Your task to perform on an android device: turn notification dots on Image 0: 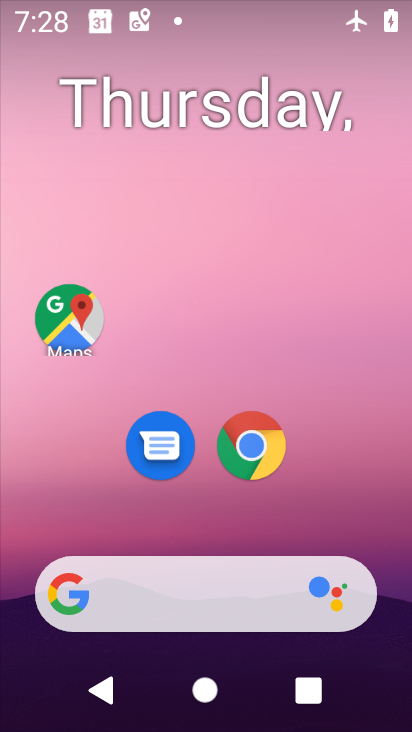
Step 0: drag from (400, 638) to (274, 57)
Your task to perform on an android device: turn notification dots on Image 1: 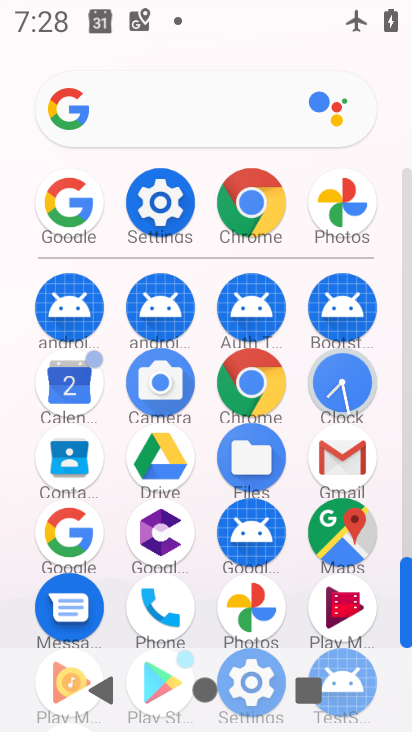
Step 1: click (173, 186)
Your task to perform on an android device: turn notification dots on Image 2: 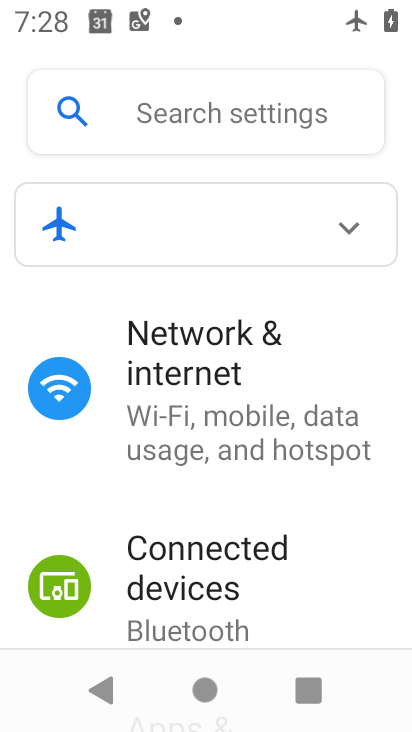
Step 2: drag from (264, 565) to (226, 169)
Your task to perform on an android device: turn notification dots on Image 3: 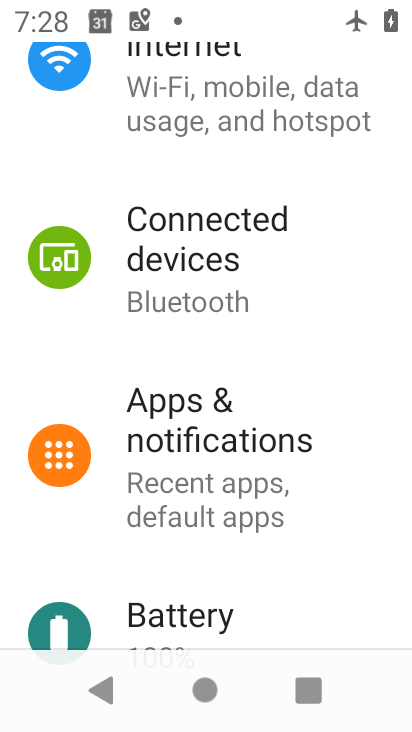
Step 3: click (252, 419)
Your task to perform on an android device: turn notification dots on Image 4: 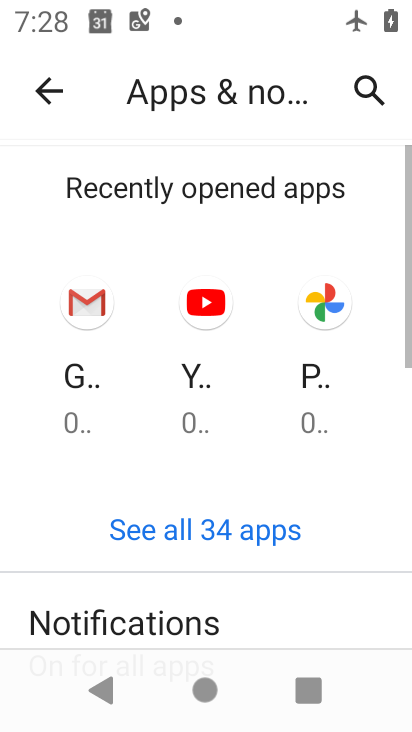
Step 4: click (182, 607)
Your task to perform on an android device: turn notification dots on Image 5: 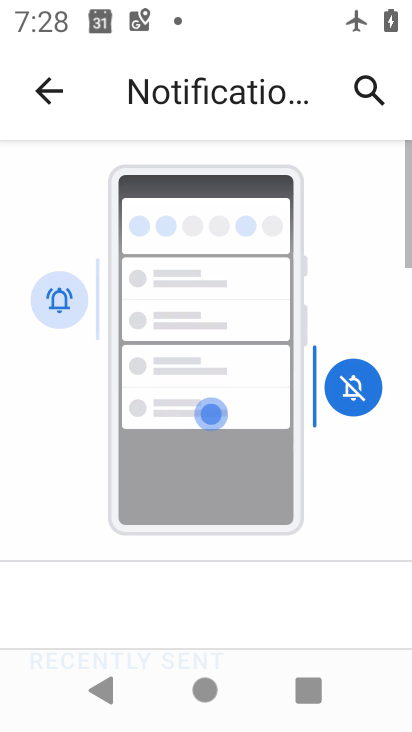
Step 5: drag from (182, 607) to (173, 53)
Your task to perform on an android device: turn notification dots on Image 6: 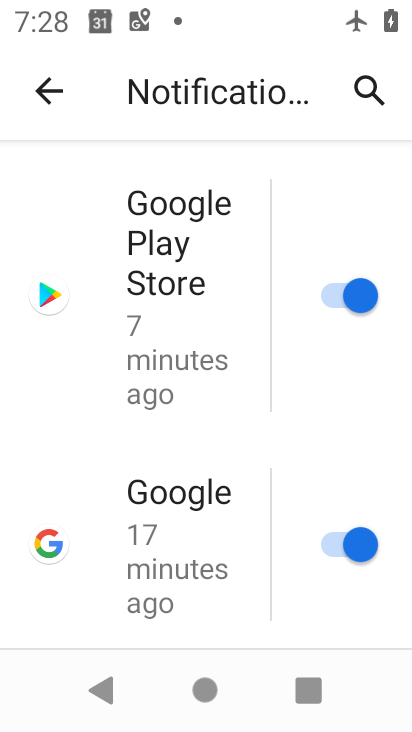
Step 6: drag from (237, 612) to (267, 14)
Your task to perform on an android device: turn notification dots on Image 7: 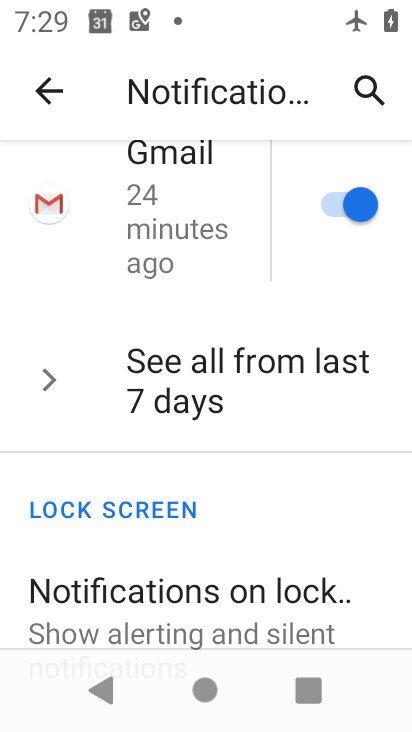
Step 7: drag from (223, 550) to (259, 1)
Your task to perform on an android device: turn notification dots on Image 8: 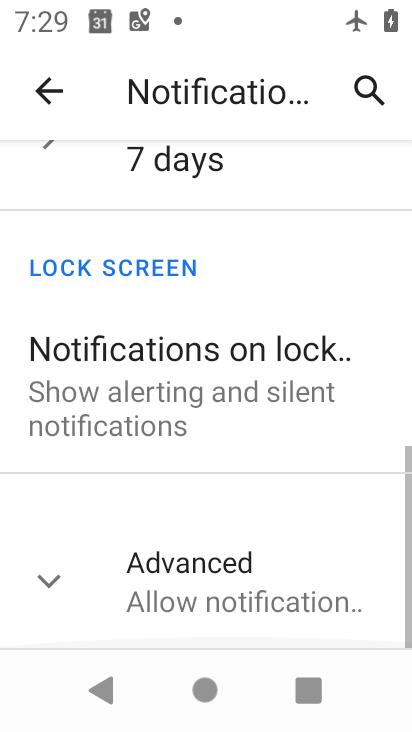
Step 8: click (137, 583)
Your task to perform on an android device: turn notification dots on Image 9: 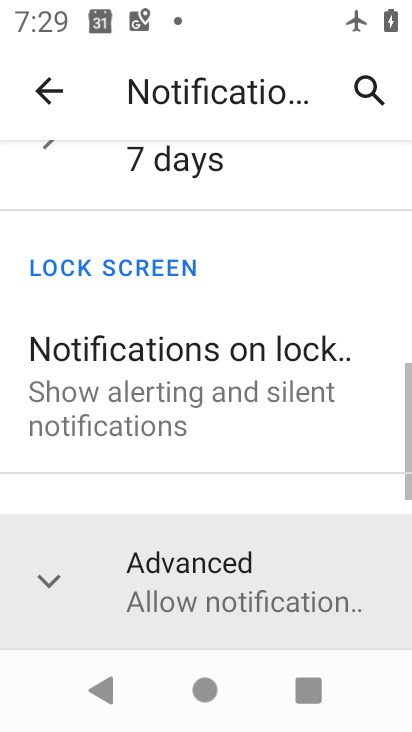
Step 9: drag from (174, 605) to (207, 570)
Your task to perform on an android device: turn notification dots on Image 10: 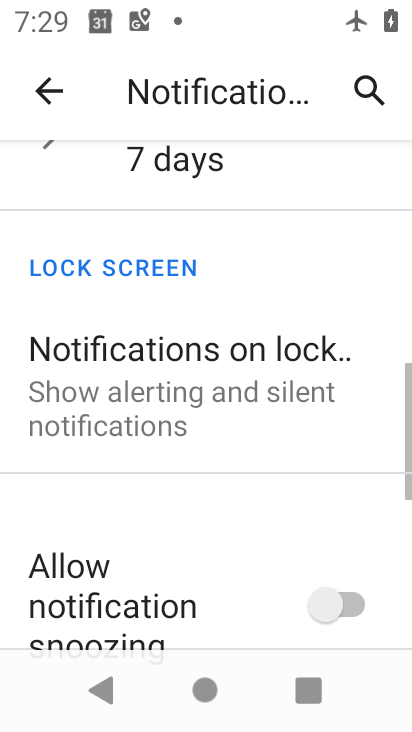
Step 10: drag from (258, 384) to (247, 58)
Your task to perform on an android device: turn notification dots on Image 11: 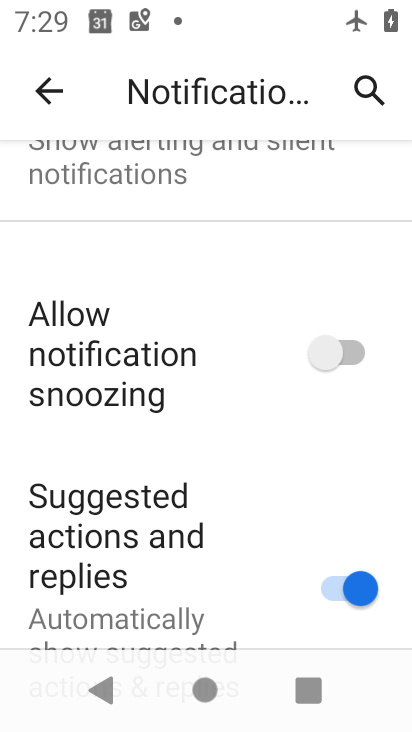
Step 11: drag from (251, 542) to (237, 62)
Your task to perform on an android device: turn notification dots on Image 12: 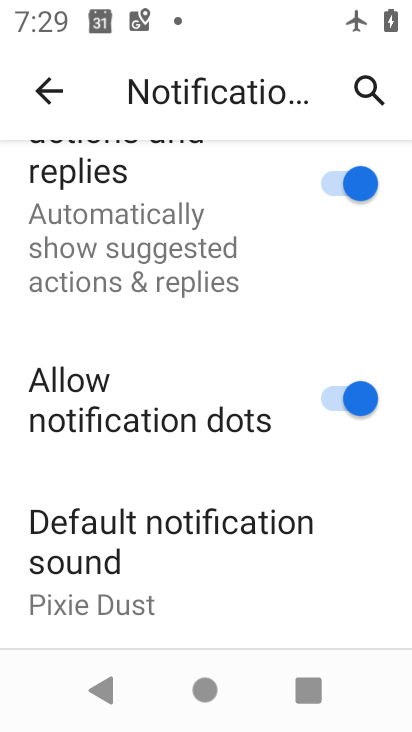
Step 12: click (273, 419)
Your task to perform on an android device: turn notification dots on Image 13: 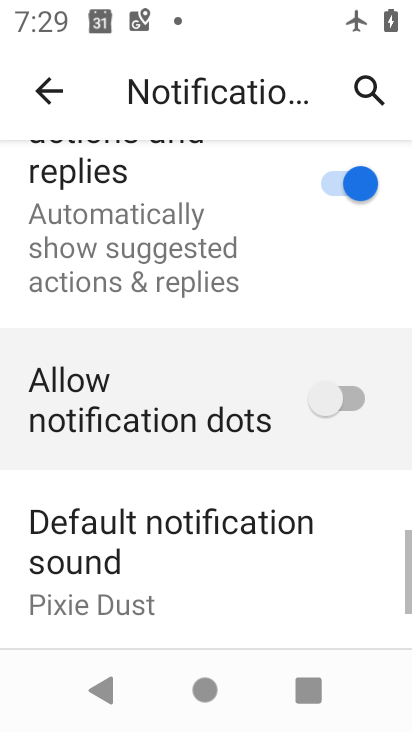
Step 13: click (273, 419)
Your task to perform on an android device: turn notification dots on Image 14: 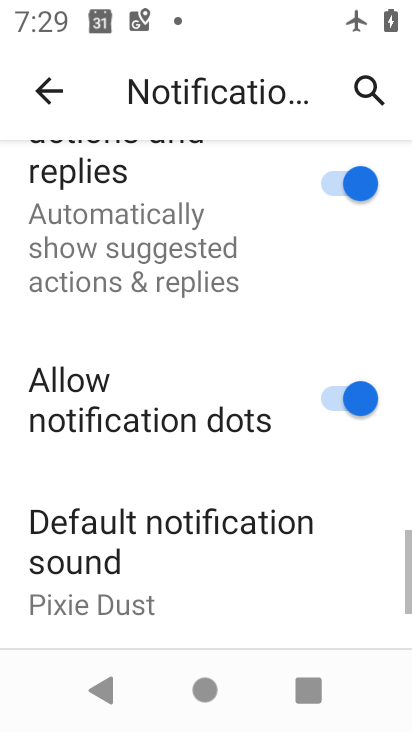
Step 14: task complete